Your task to perform on an android device: turn on wifi Image 0: 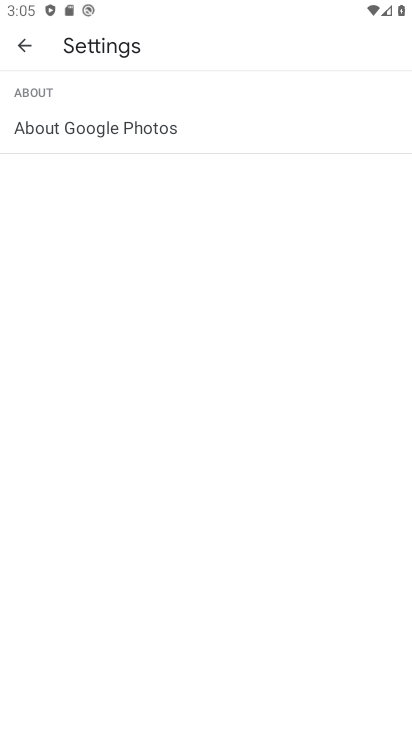
Step 0: press home button
Your task to perform on an android device: turn on wifi Image 1: 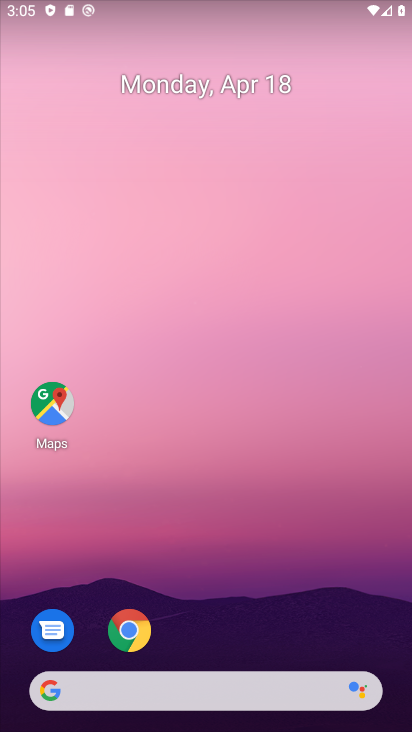
Step 1: drag from (321, 501) to (406, 167)
Your task to perform on an android device: turn on wifi Image 2: 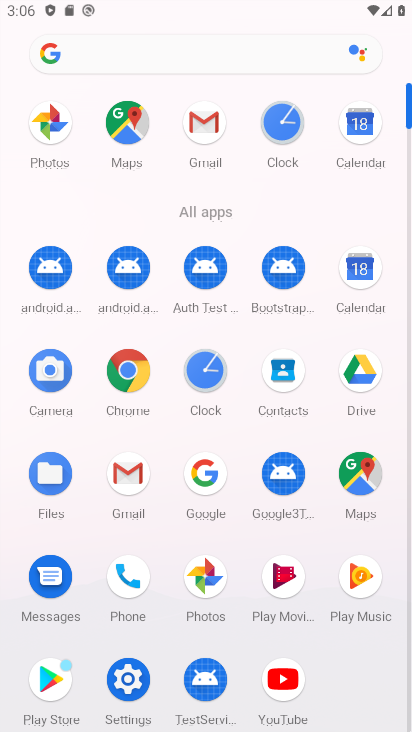
Step 2: click (137, 668)
Your task to perform on an android device: turn on wifi Image 3: 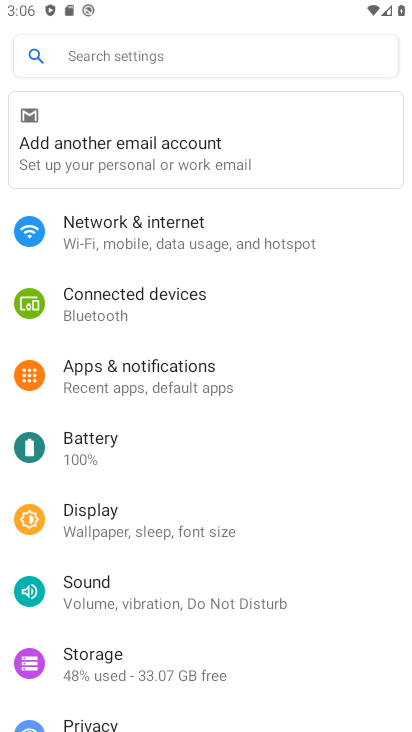
Step 3: click (202, 243)
Your task to perform on an android device: turn on wifi Image 4: 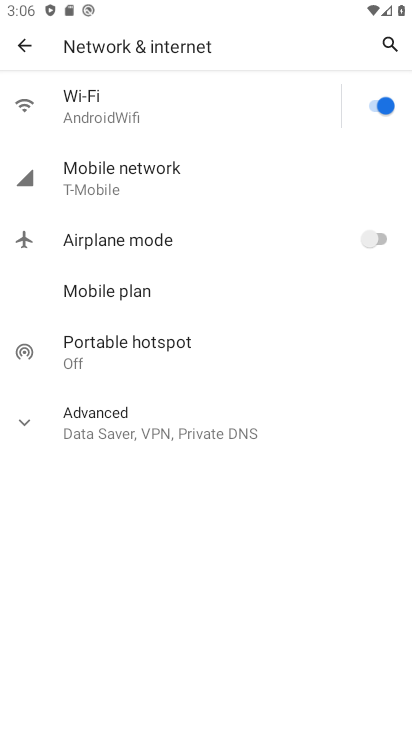
Step 4: task complete